Your task to perform on an android device: turn on showing notifications on the lock screen Image 0: 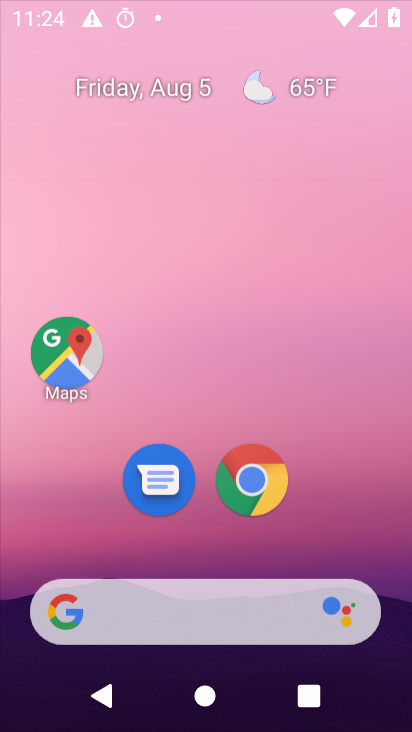
Step 0: drag from (61, 510) to (224, 54)
Your task to perform on an android device: turn on showing notifications on the lock screen Image 1: 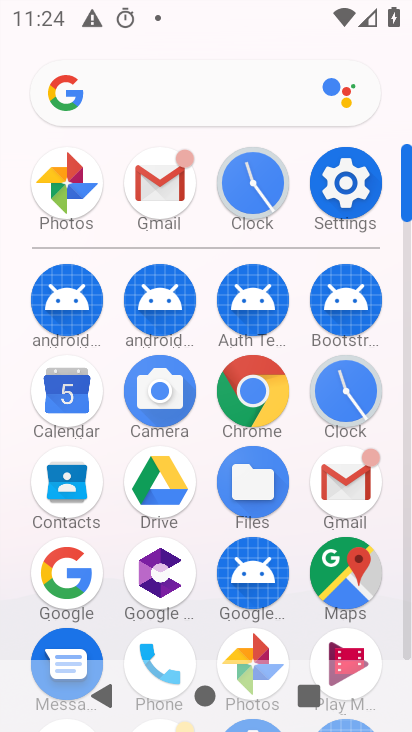
Step 1: click (342, 189)
Your task to perform on an android device: turn on showing notifications on the lock screen Image 2: 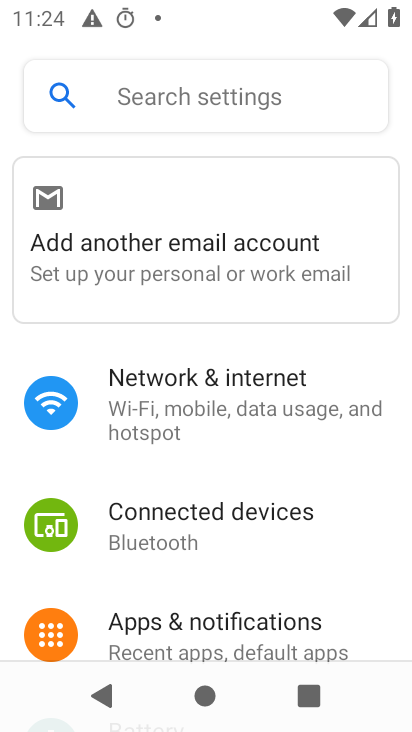
Step 2: click (172, 619)
Your task to perform on an android device: turn on showing notifications on the lock screen Image 3: 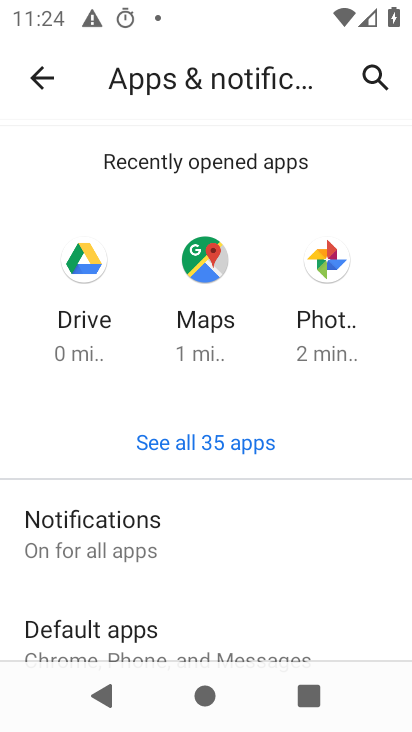
Step 3: click (158, 548)
Your task to perform on an android device: turn on showing notifications on the lock screen Image 4: 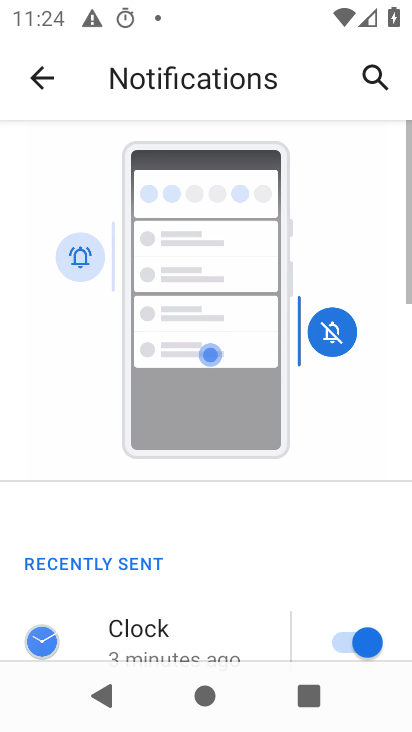
Step 4: drag from (162, 603) to (325, 37)
Your task to perform on an android device: turn on showing notifications on the lock screen Image 5: 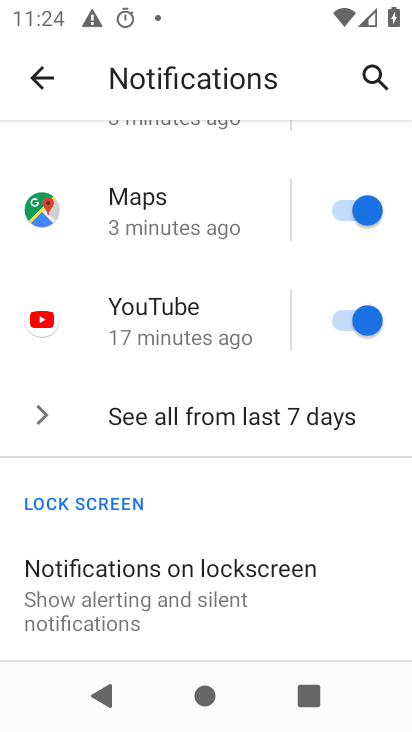
Step 5: click (119, 586)
Your task to perform on an android device: turn on showing notifications on the lock screen Image 6: 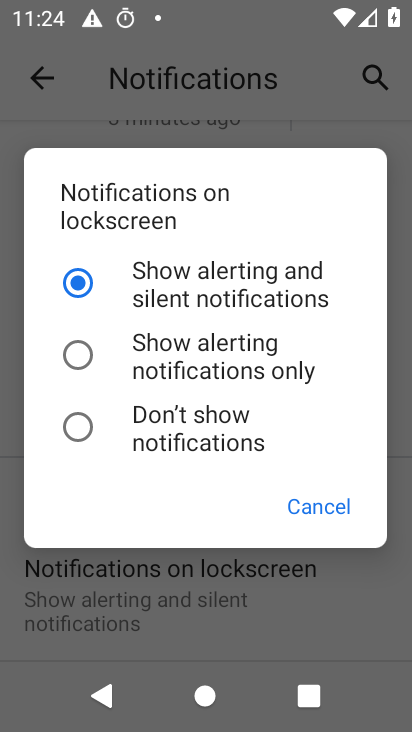
Step 6: task complete